Your task to perform on an android device: Open Google Chrome and click the shortcut for Amazon.com Image 0: 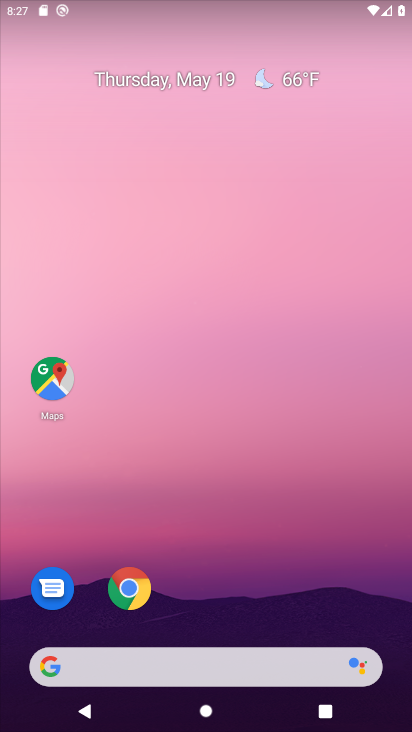
Step 0: drag from (343, 593) to (342, 220)
Your task to perform on an android device: Open Google Chrome and click the shortcut for Amazon.com Image 1: 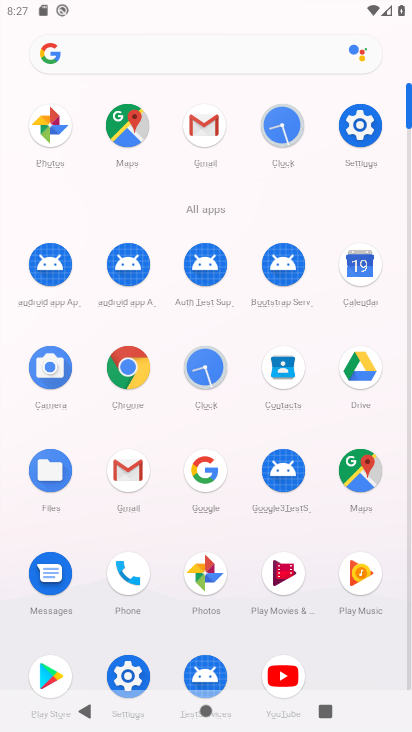
Step 1: click (148, 378)
Your task to perform on an android device: Open Google Chrome and click the shortcut for Amazon.com Image 2: 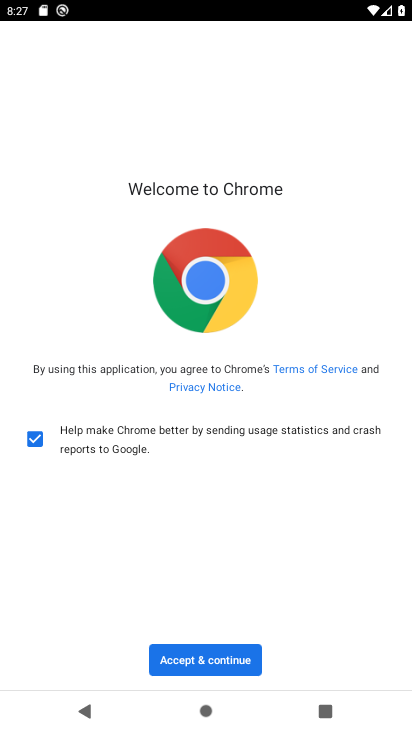
Step 2: click (237, 665)
Your task to perform on an android device: Open Google Chrome and click the shortcut for Amazon.com Image 3: 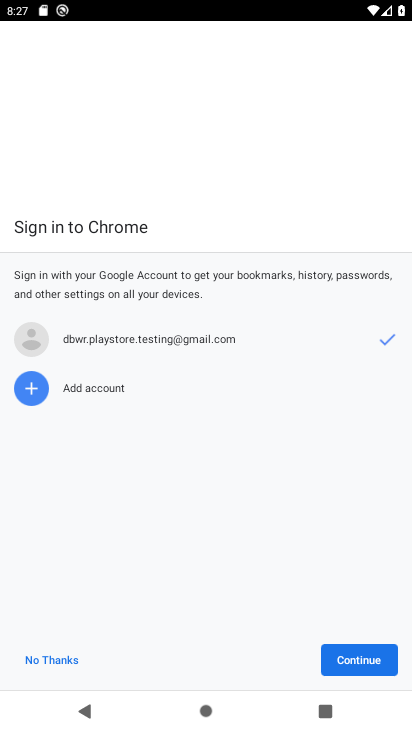
Step 3: click (345, 658)
Your task to perform on an android device: Open Google Chrome and click the shortcut for Amazon.com Image 4: 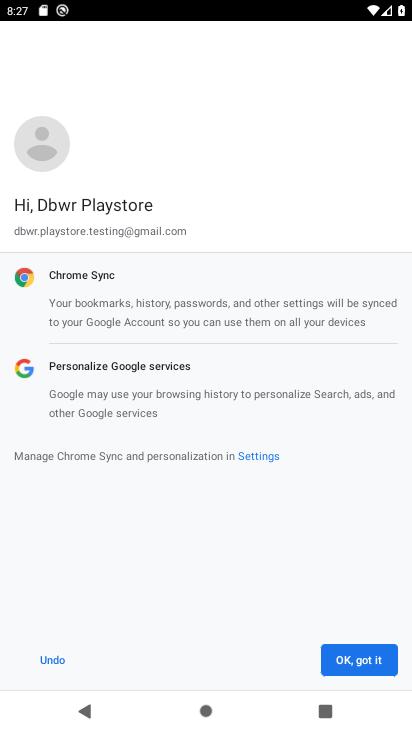
Step 4: click (345, 658)
Your task to perform on an android device: Open Google Chrome and click the shortcut for Amazon.com Image 5: 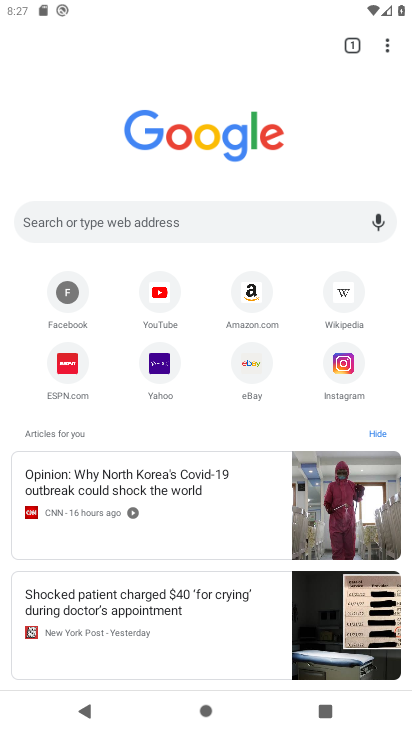
Step 5: click (266, 298)
Your task to perform on an android device: Open Google Chrome and click the shortcut for Amazon.com Image 6: 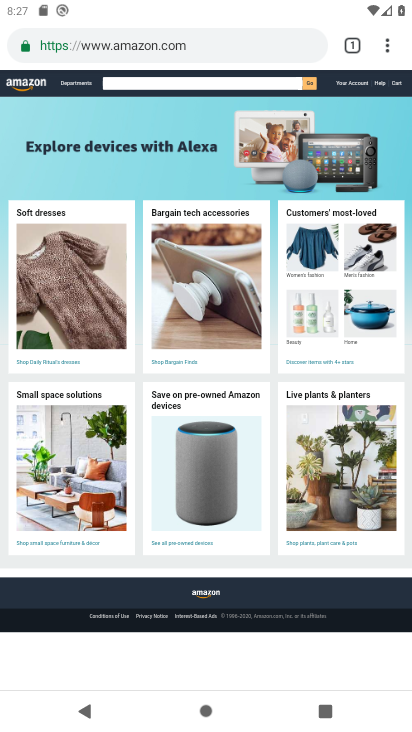
Step 6: task complete